Your task to perform on an android device: Go to Android settings Image 0: 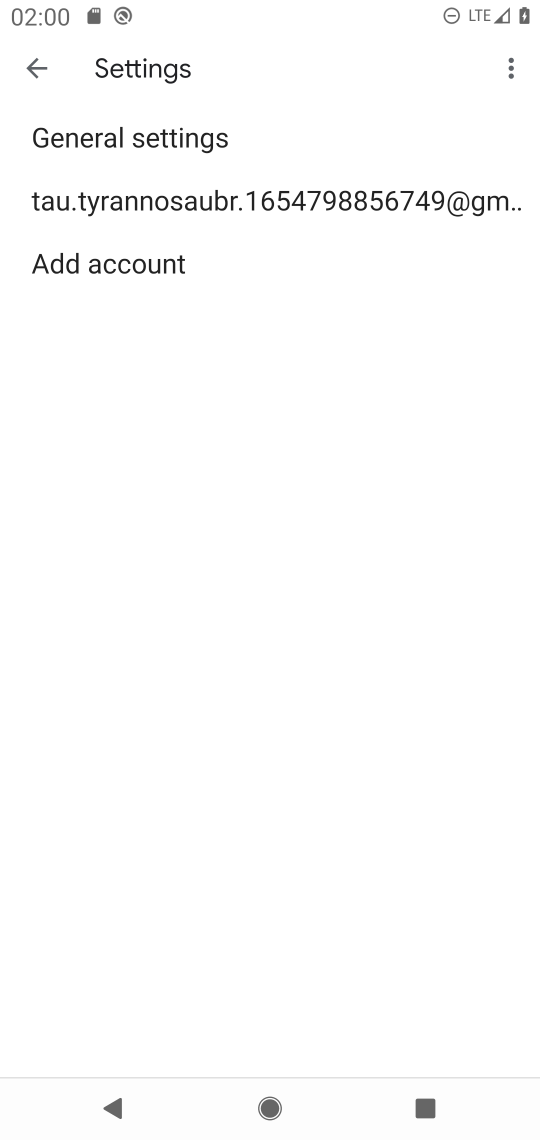
Step 0: press home button
Your task to perform on an android device: Go to Android settings Image 1: 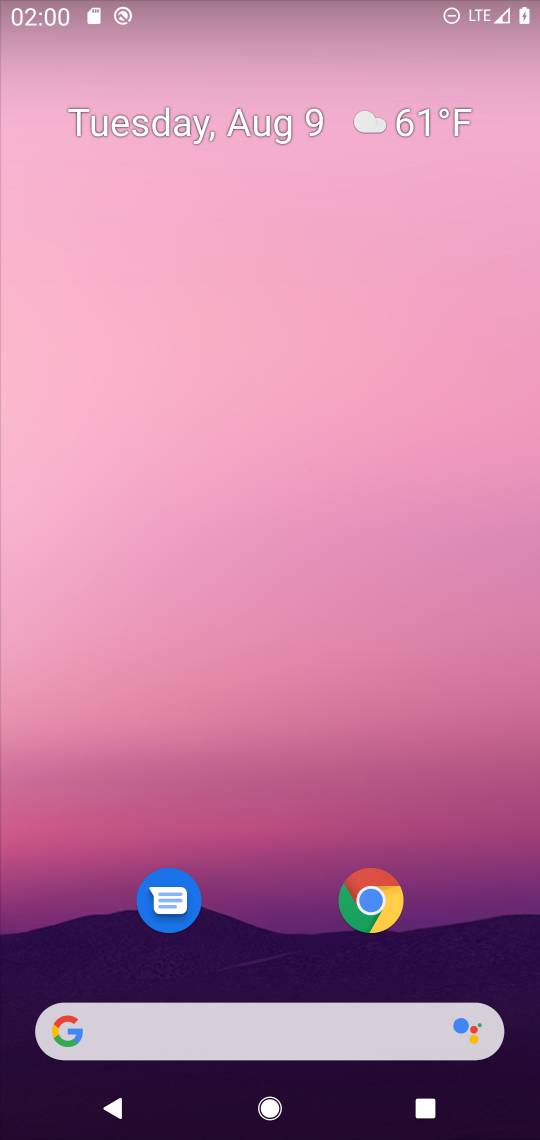
Step 1: drag from (275, 920) to (320, 354)
Your task to perform on an android device: Go to Android settings Image 2: 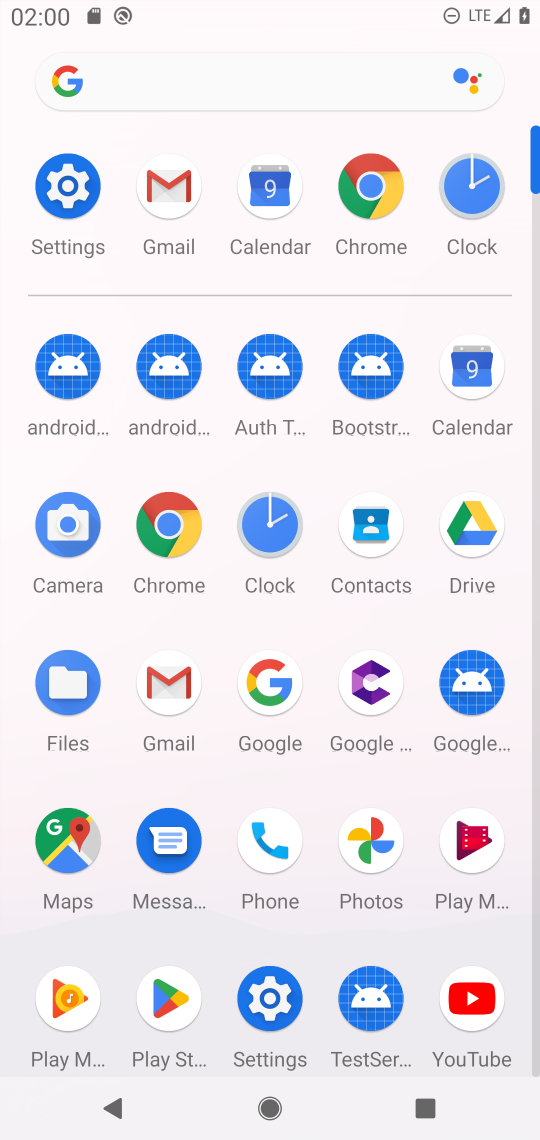
Step 2: click (63, 186)
Your task to perform on an android device: Go to Android settings Image 3: 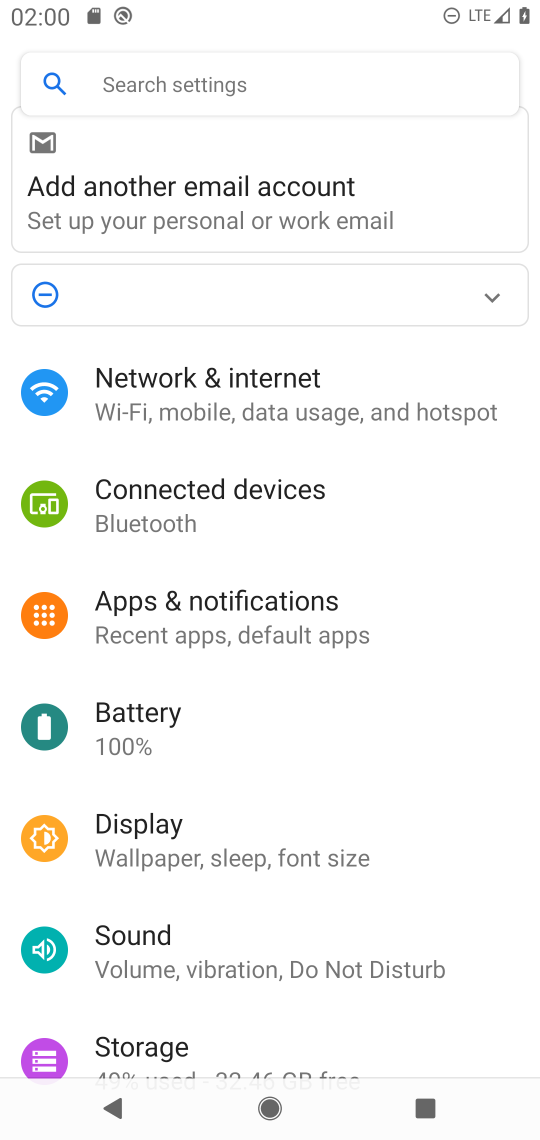
Step 3: drag from (453, 772) to (513, 326)
Your task to perform on an android device: Go to Android settings Image 4: 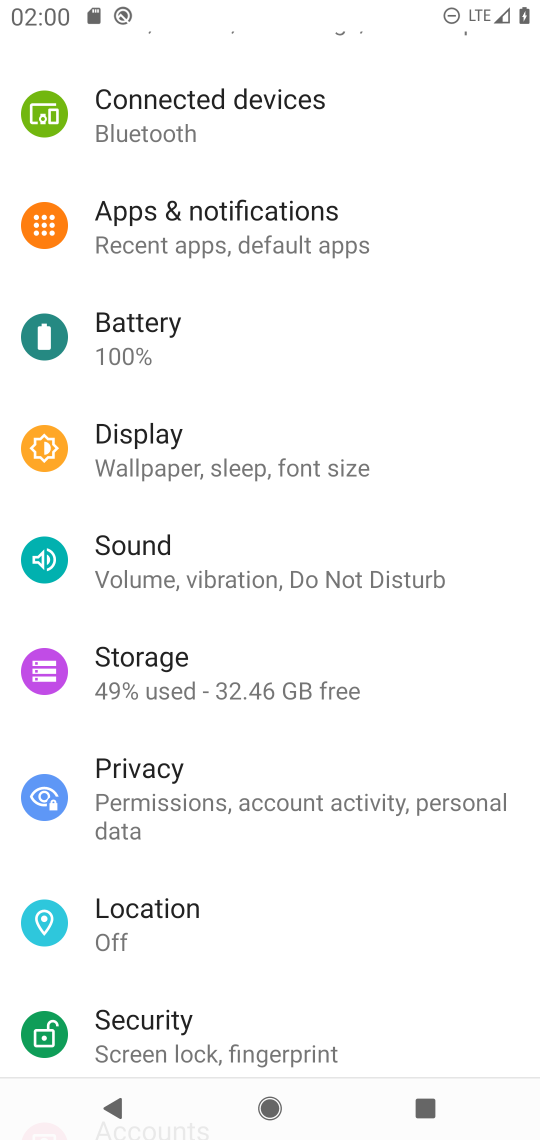
Step 4: drag from (438, 834) to (433, 521)
Your task to perform on an android device: Go to Android settings Image 5: 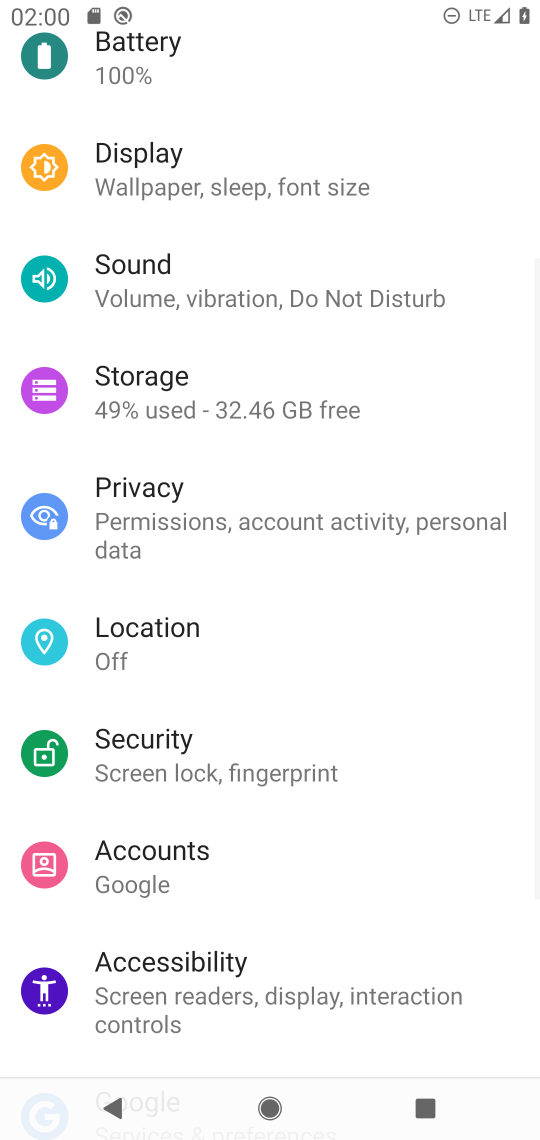
Step 5: drag from (428, 792) to (410, 490)
Your task to perform on an android device: Go to Android settings Image 6: 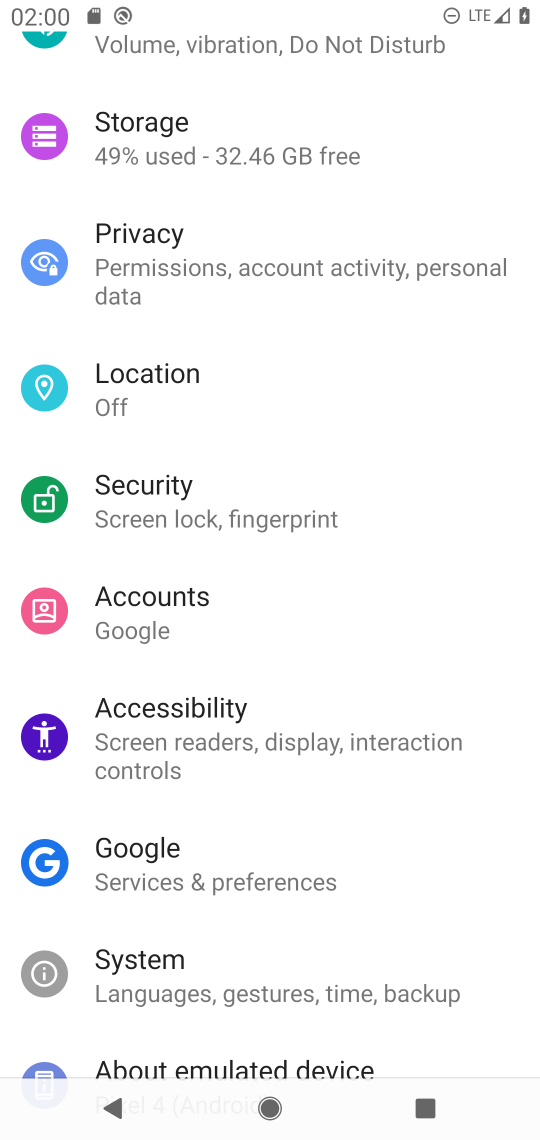
Step 6: drag from (387, 829) to (397, 458)
Your task to perform on an android device: Go to Android settings Image 7: 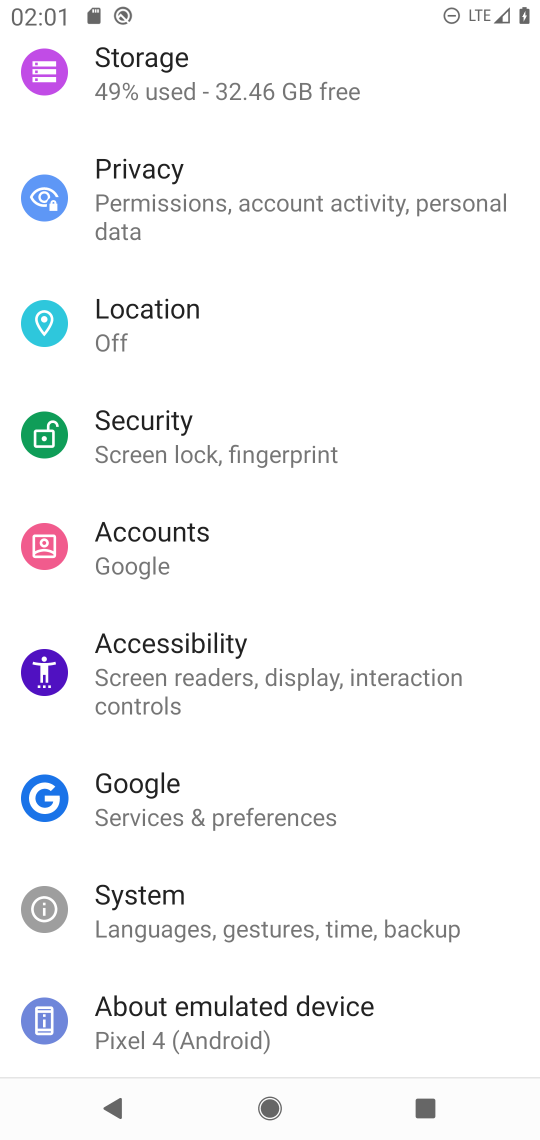
Step 7: click (295, 925)
Your task to perform on an android device: Go to Android settings Image 8: 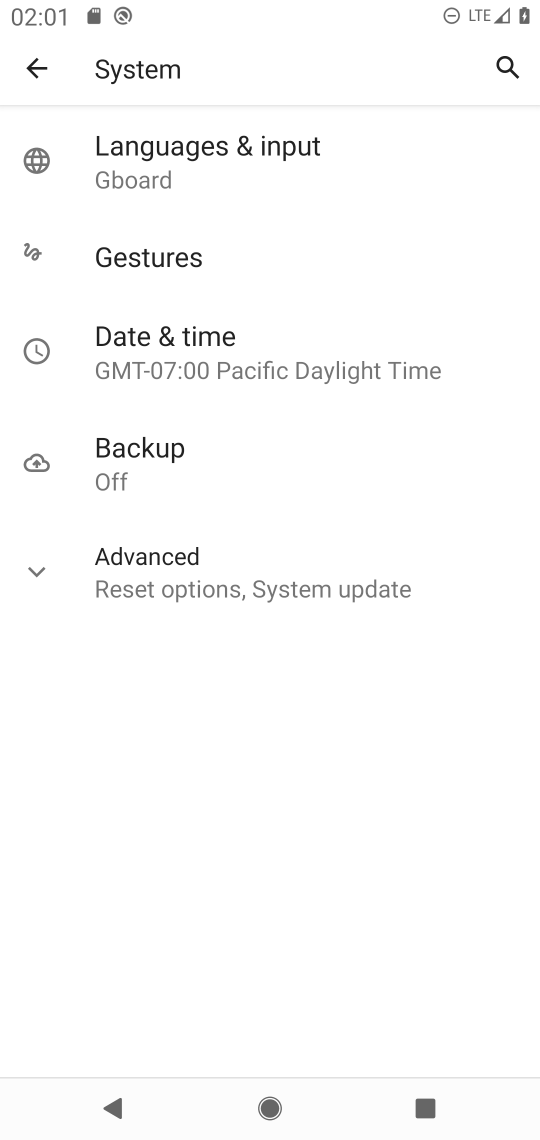
Step 8: click (286, 568)
Your task to perform on an android device: Go to Android settings Image 9: 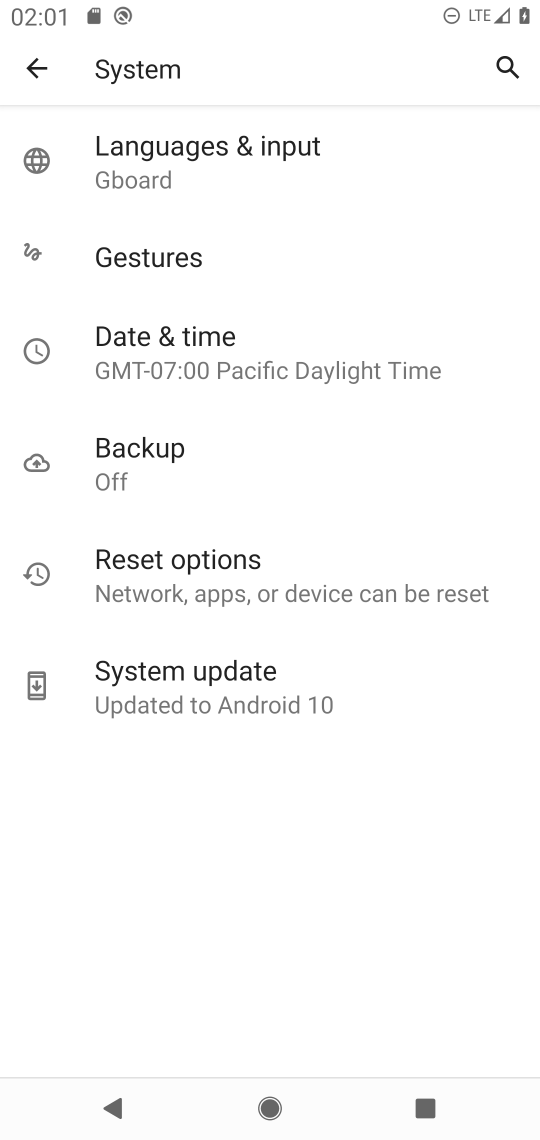
Step 9: task complete